Your task to perform on an android device: turn smart compose on in the gmail app Image 0: 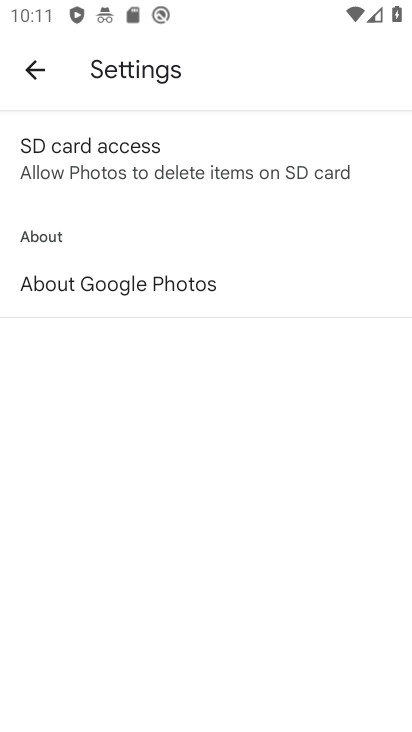
Step 0: click (38, 59)
Your task to perform on an android device: turn smart compose on in the gmail app Image 1: 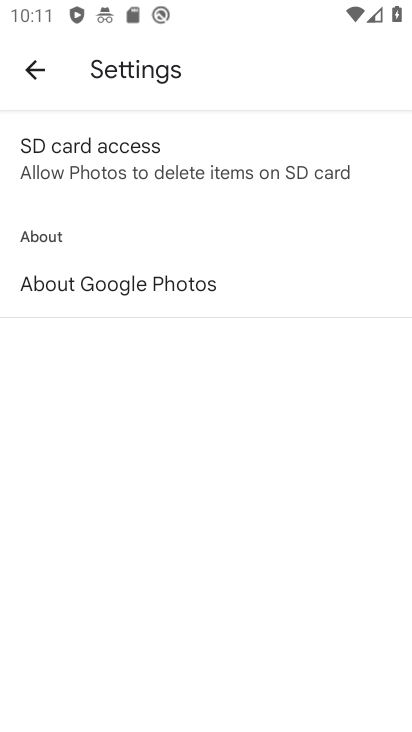
Step 1: click (38, 59)
Your task to perform on an android device: turn smart compose on in the gmail app Image 2: 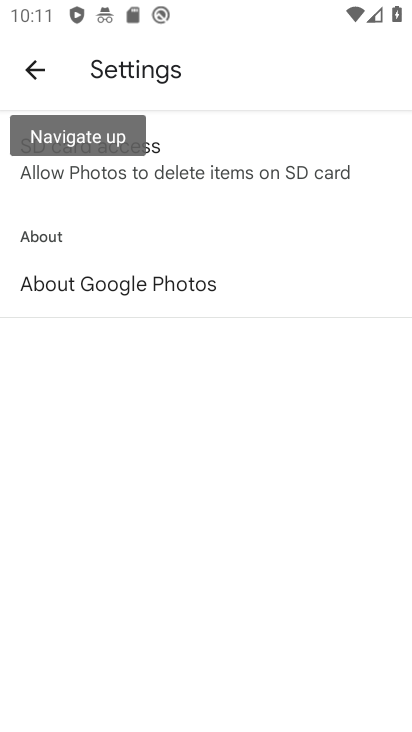
Step 2: click (38, 59)
Your task to perform on an android device: turn smart compose on in the gmail app Image 3: 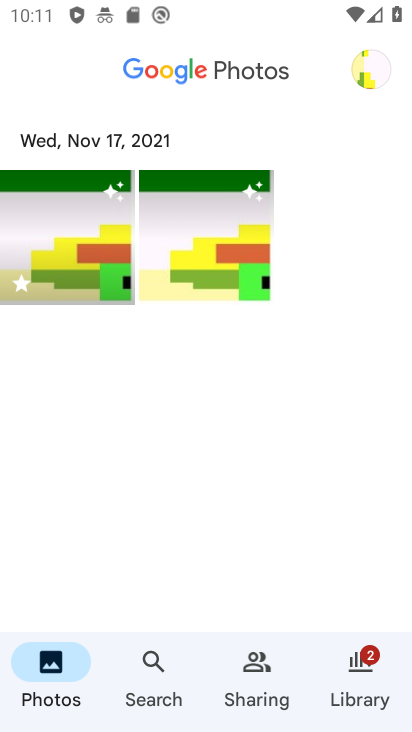
Step 3: press home button
Your task to perform on an android device: turn smart compose on in the gmail app Image 4: 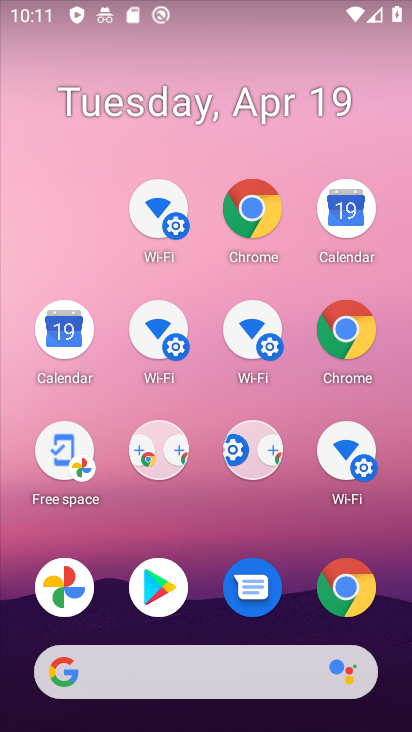
Step 4: drag from (323, 686) to (171, 90)
Your task to perform on an android device: turn smart compose on in the gmail app Image 5: 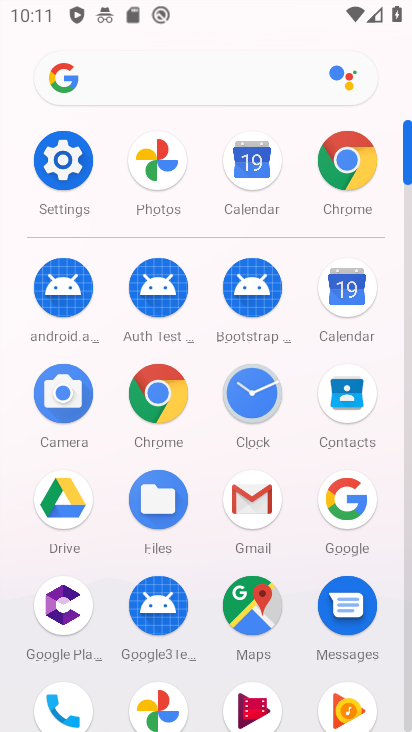
Step 5: click (256, 493)
Your task to perform on an android device: turn smart compose on in the gmail app Image 6: 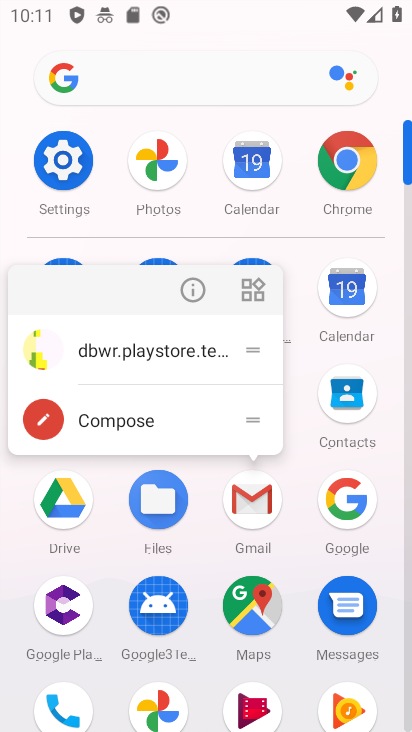
Step 6: click (255, 494)
Your task to perform on an android device: turn smart compose on in the gmail app Image 7: 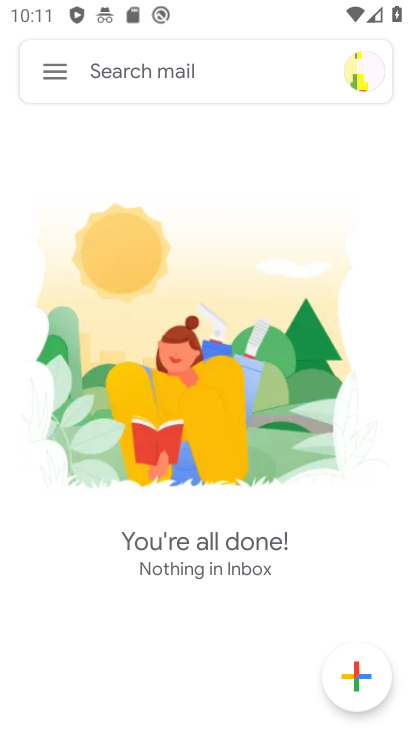
Step 7: click (44, 64)
Your task to perform on an android device: turn smart compose on in the gmail app Image 8: 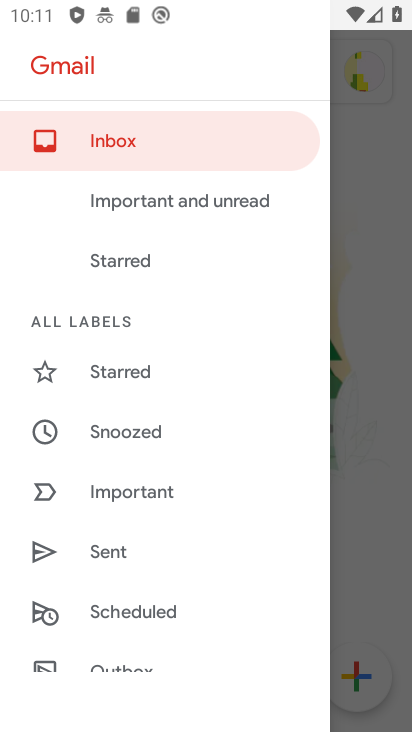
Step 8: drag from (230, 590) to (198, 234)
Your task to perform on an android device: turn smart compose on in the gmail app Image 9: 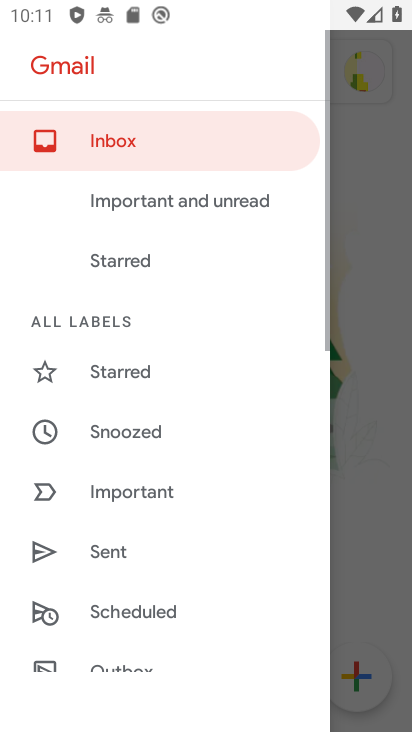
Step 9: drag from (173, 558) to (146, 227)
Your task to perform on an android device: turn smart compose on in the gmail app Image 10: 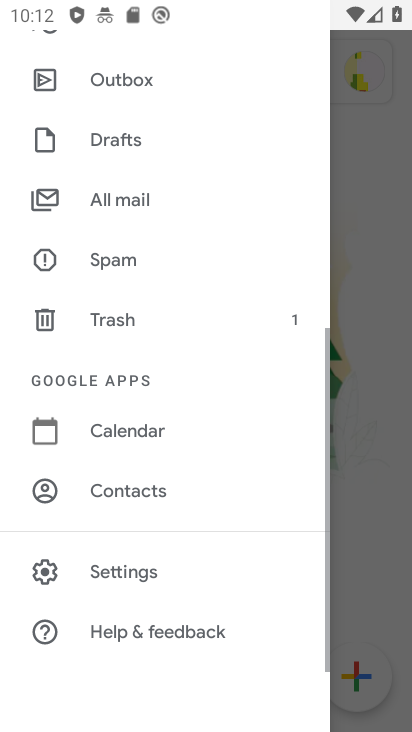
Step 10: drag from (211, 564) to (232, 109)
Your task to perform on an android device: turn smart compose on in the gmail app Image 11: 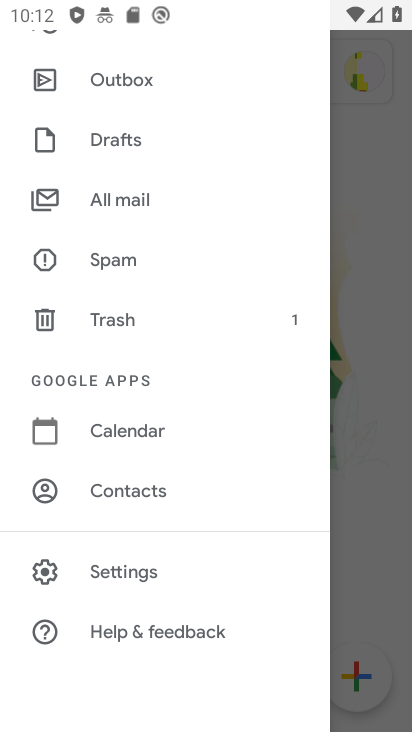
Step 11: click (108, 561)
Your task to perform on an android device: turn smart compose on in the gmail app Image 12: 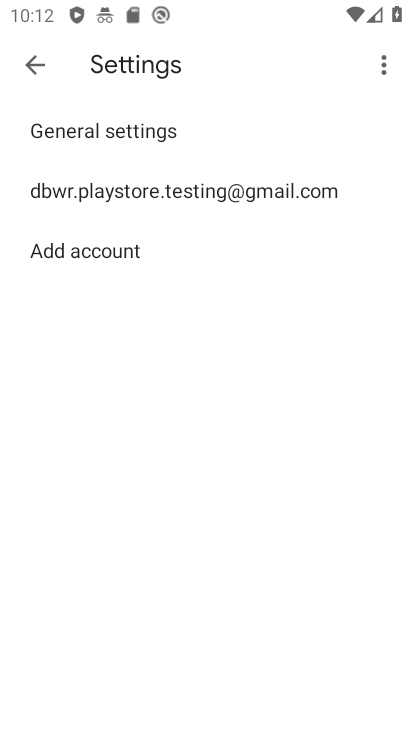
Step 12: click (121, 197)
Your task to perform on an android device: turn smart compose on in the gmail app Image 13: 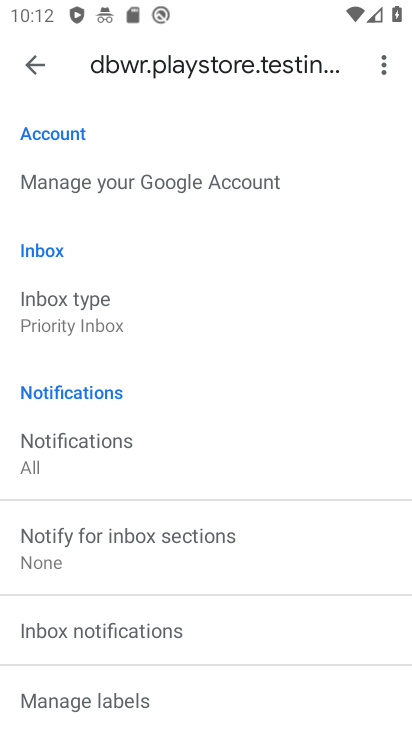
Step 13: drag from (172, 513) to (128, 158)
Your task to perform on an android device: turn smart compose on in the gmail app Image 14: 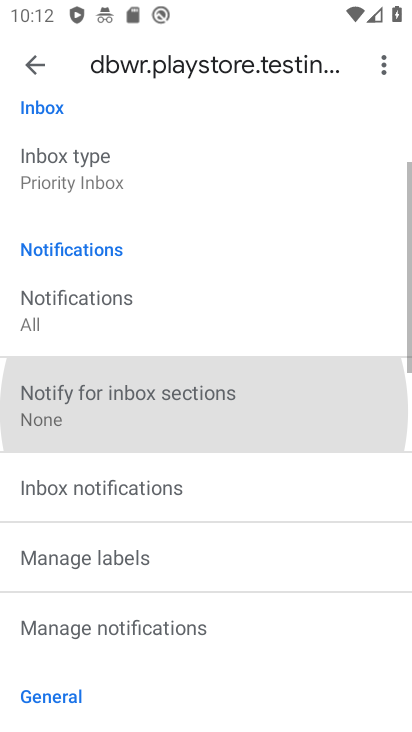
Step 14: drag from (161, 586) to (92, 215)
Your task to perform on an android device: turn smart compose on in the gmail app Image 15: 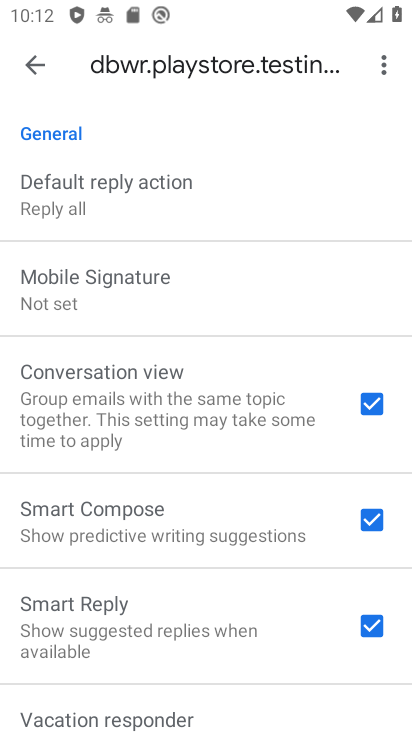
Step 15: click (366, 517)
Your task to perform on an android device: turn smart compose on in the gmail app Image 16: 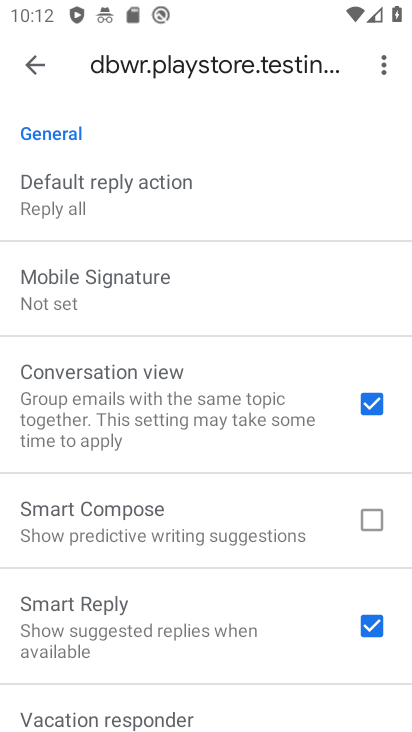
Step 16: task complete